Your task to perform on an android device: Go to display settings Image 0: 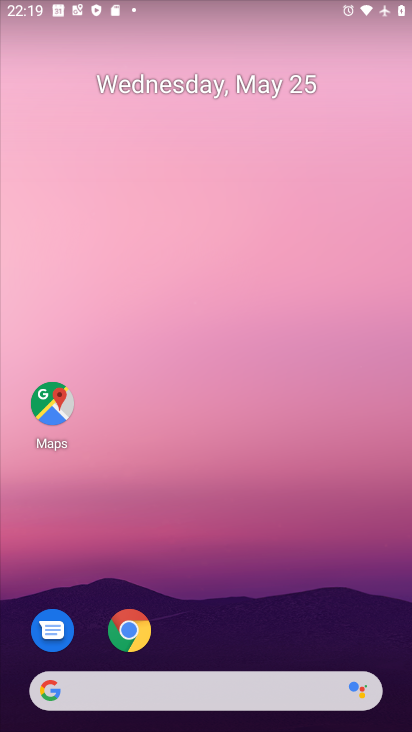
Step 0: drag from (221, 601) to (236, 268)
Your task to perform on an android device: Go to display settings Image 1: 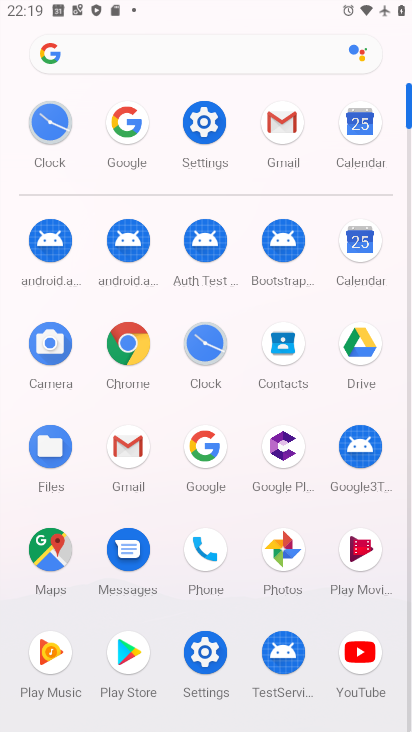
Step 1: click (213, 141)
Your task to perform on an android device: Go to display settings Image 2: 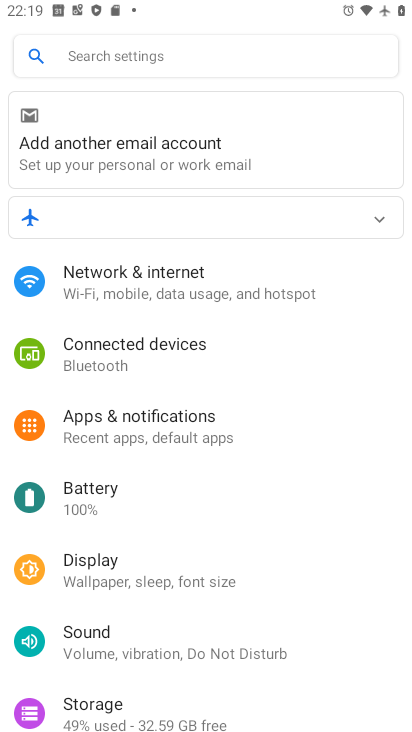
Step 2: click (141, 566)
Your task to perform on an android device: Go to display settings Image 3: 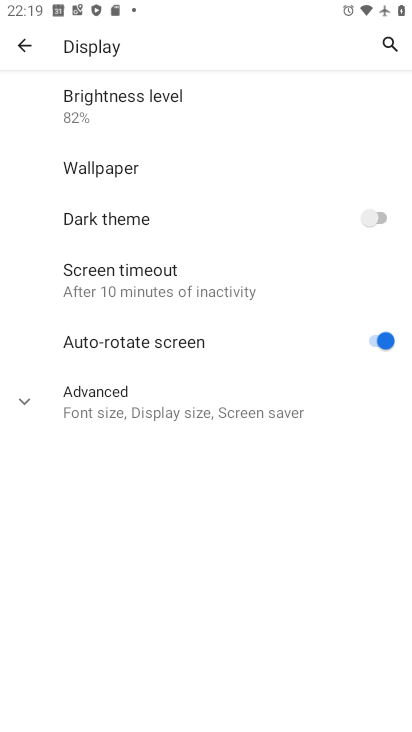
Step 3: task complete